Your task to perform on an android device: What's the weather going to be this weekend? Image 0: 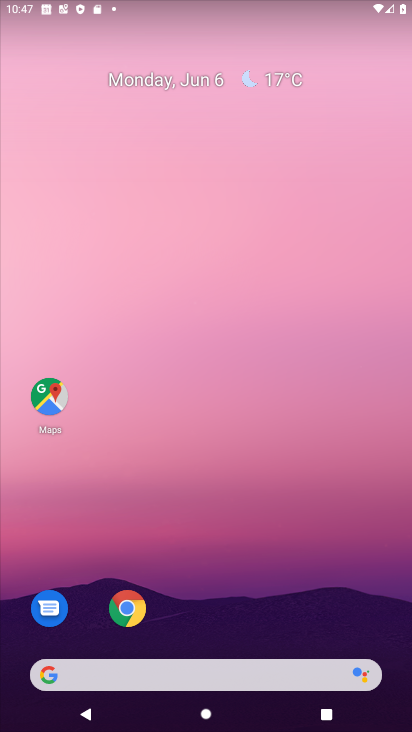
Step 0: drag from (223, 627) to (190, 272)
Your task to perform on an android device: What's the weather going to be this weekend? Image 1: 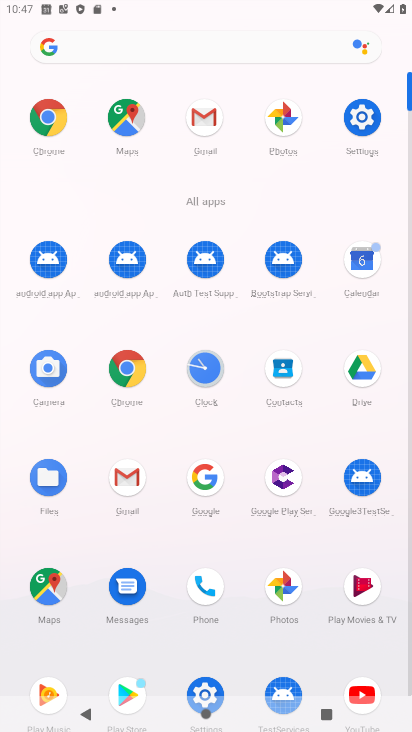
Step 1: click (61, 108)
Your task to perform on an android device: What's the weather going to be this weekend? Image 2: 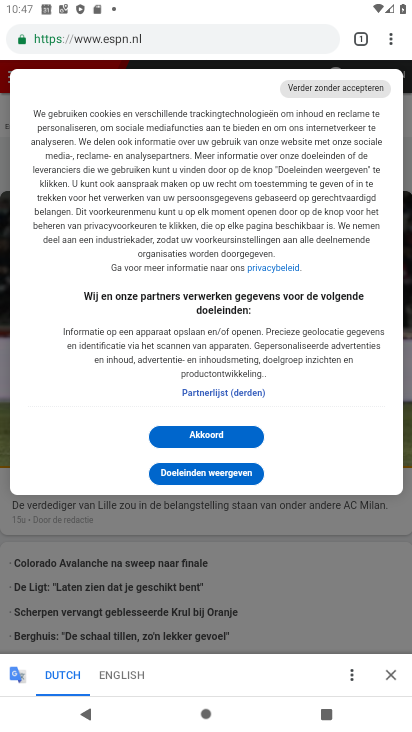
Step 2: click (246, 37)
Your task to perform on an android device: What's the weather going to be this weekend? Image 3: 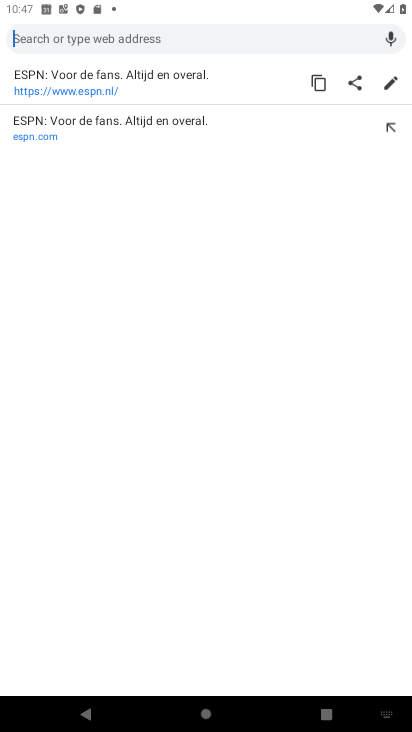
Step 3: type "What's the weather going to be this weekend?"
Your task to perform on an android device: What's the weather going to be this weekend? Image 4: 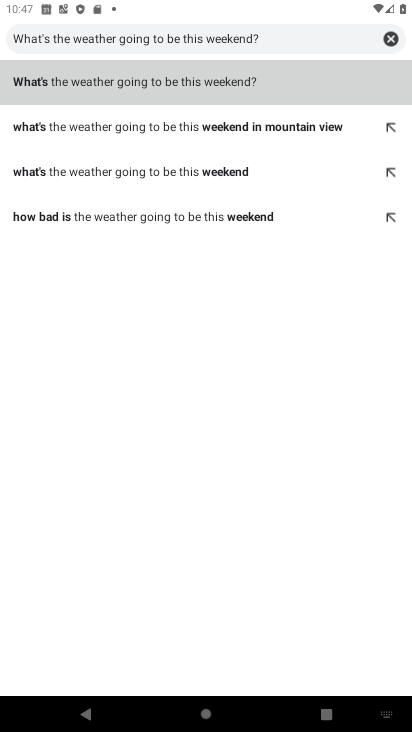
Step 4: press enter
Your task to perform on an android device: What's the weather going to be this weekend? Image 5: 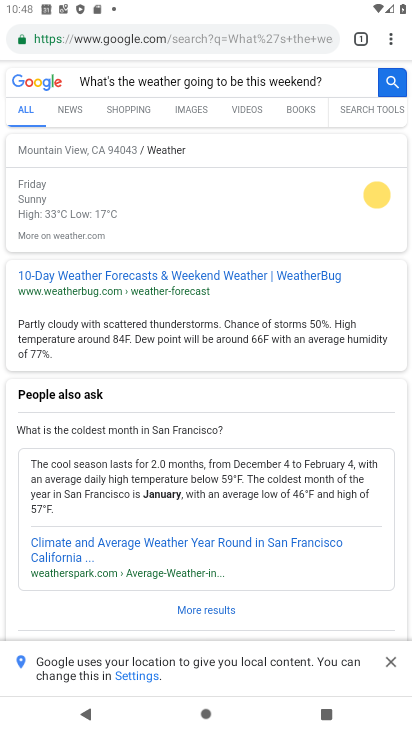
Step 5: click (307, 279)
Your task to perform on an android device: What's the weather going to be this weekend? Image 6: 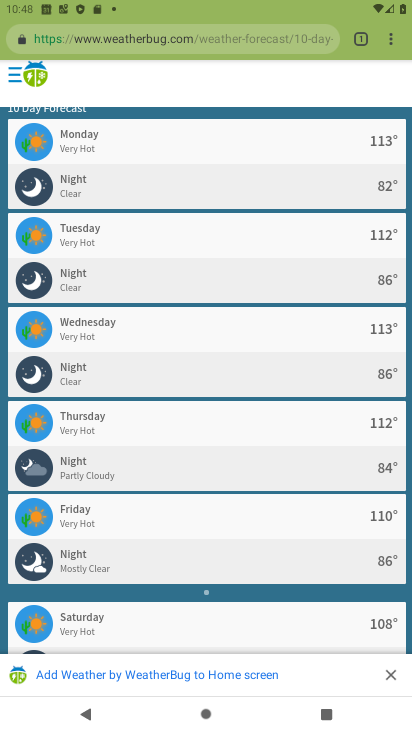
Step 6: task complete